Your task to perform on an android device: Search for seafood restaurants on Google Maps Image 0: 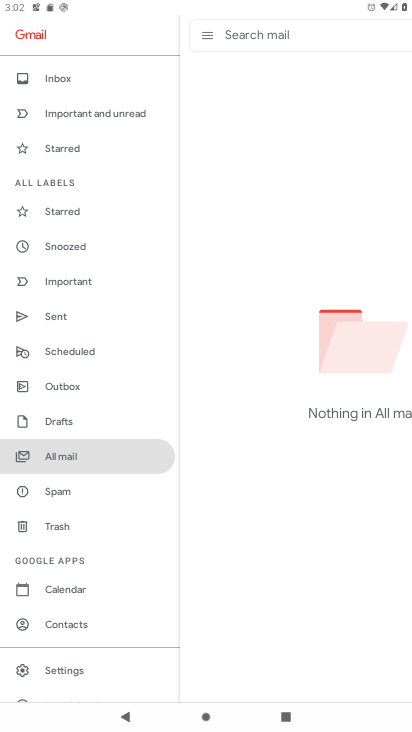
Step 0: press home button
Your task to perform on an android device: Search for seafood restaurants on Google Maps Image 1: 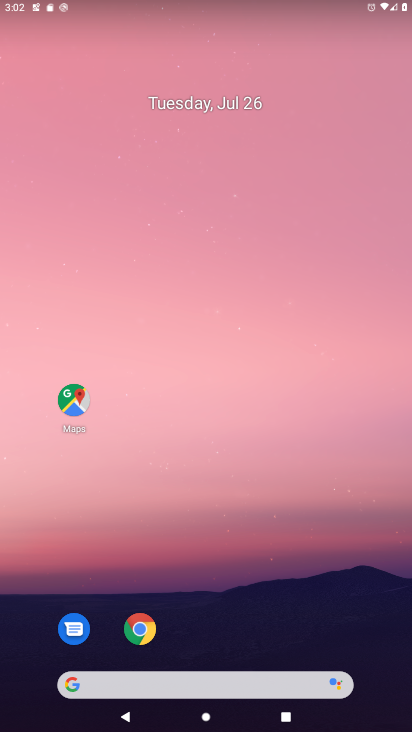
Step 1: click (80, 404)
Your task to perform on an android device: Search for seafood restaurants on Google Maps Image 2: 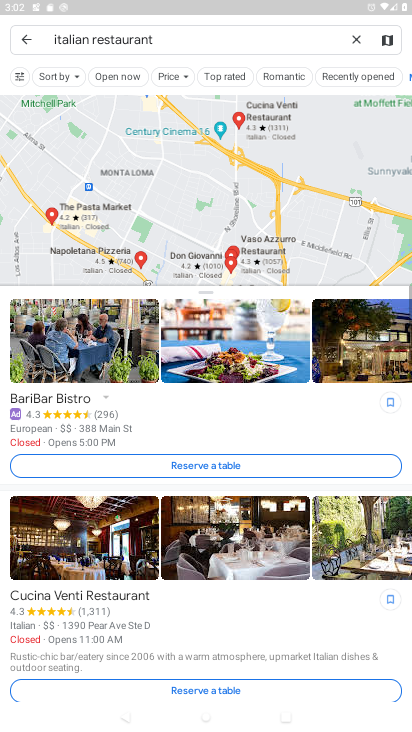
Step 2: click (357, 35)
Your task to perform on an android device: Search for seafood restaurants on Google Maps Image 3: 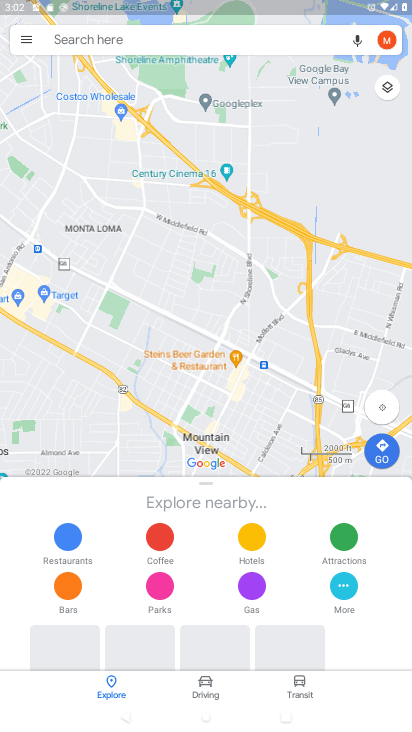
Step 3: click (309, 35)
Your task to perform on an android device: Search for seafood restaurants on Google Maps Image 4: 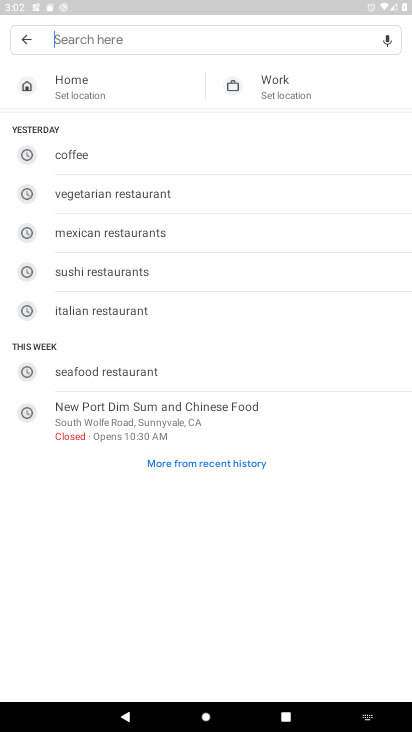
Step 4: type "seafood restaurants"
Your task to perform on an android device: Search for seafood restaurants on Google Maps Image 5: 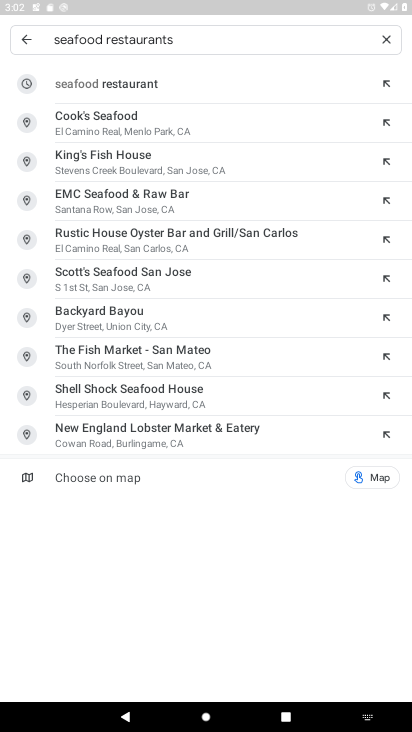
Step 5: click (100, 81)
Your task to perform on an android device: Search for seafood restaurants on Google Maps Image 6: 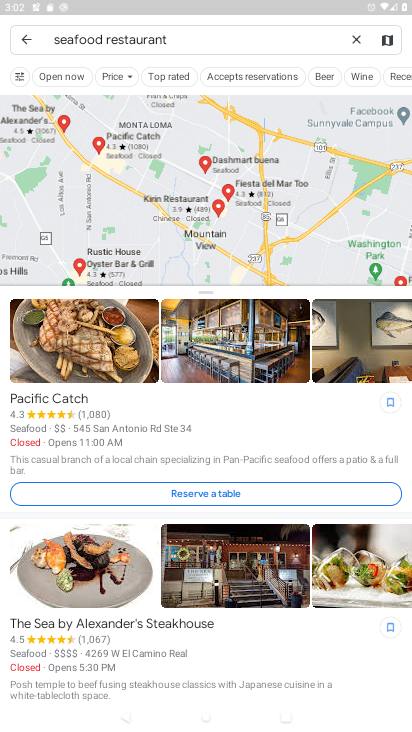
Step 6: task complete